Your task to perform on an android device: Go to ESPN.com Image 0: 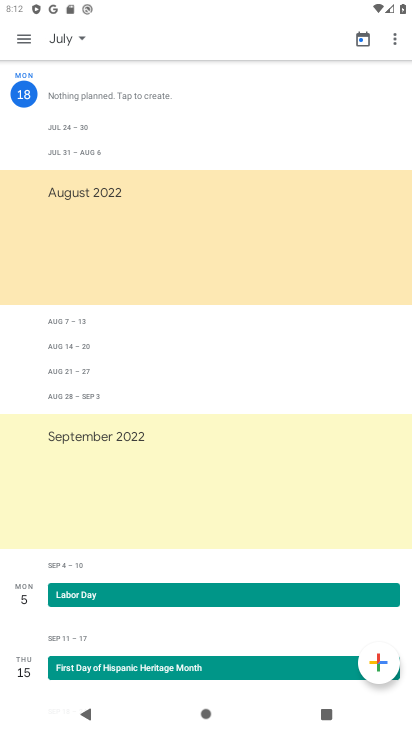
Step 0: press home button
Your task to perform on an android device: Go to ESPN.com Image 1: 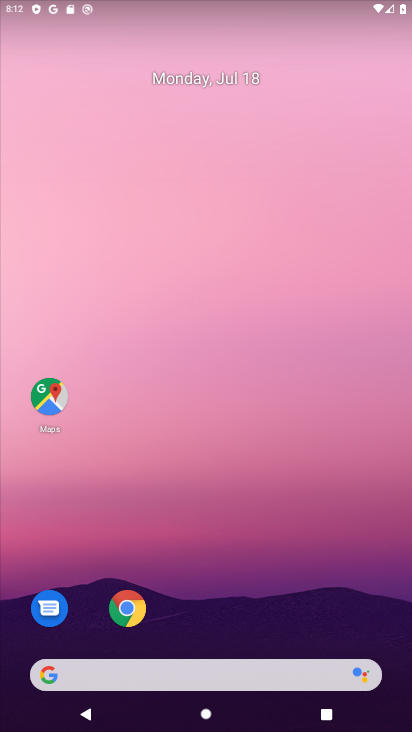
Step 1: click (142, 667)
Your task to perform on an android device: Go to ESPN.com Image 2: 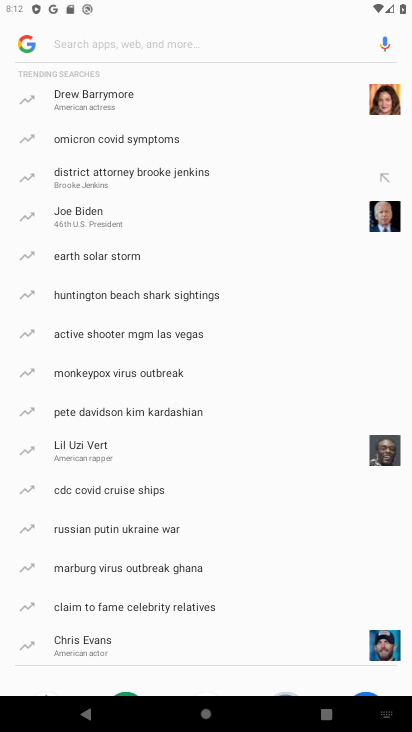
Step 2: type " ESPN.com"
Your task to perform on an android device: Go to ESPN.com Image 3: 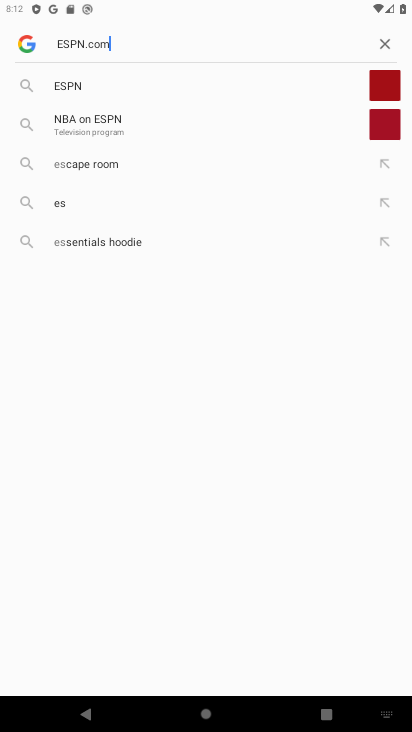
Step 3: type ""
Your task to perform on an android device: Go to ESPN.com Image 4: 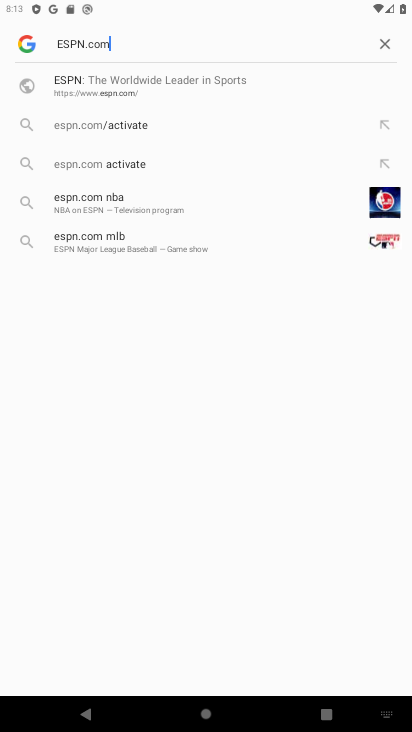
Step 4: click (84, 80)
Your task to perform on an android device: Go to ESPN.com Image 5: 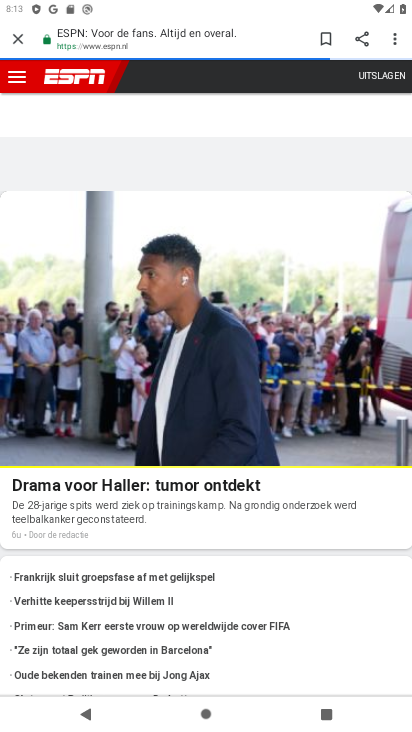
Step 5: task complete